Your task to perform on an android device: Check the weather Image 0: 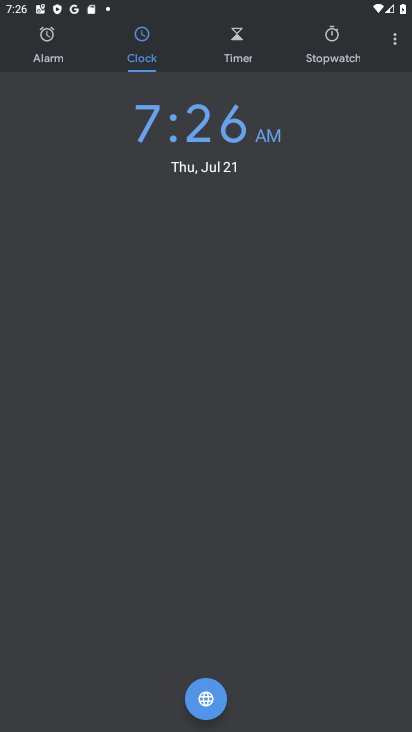
Step 0: press home button
Your task to perform on an android device: Check the weather Image 1: 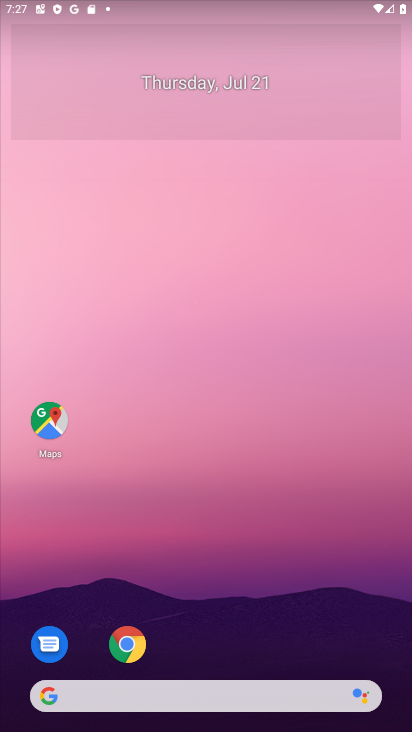
Step 1: click (83, 698)
Your task to perform on an android device: Check the weather Image 2: 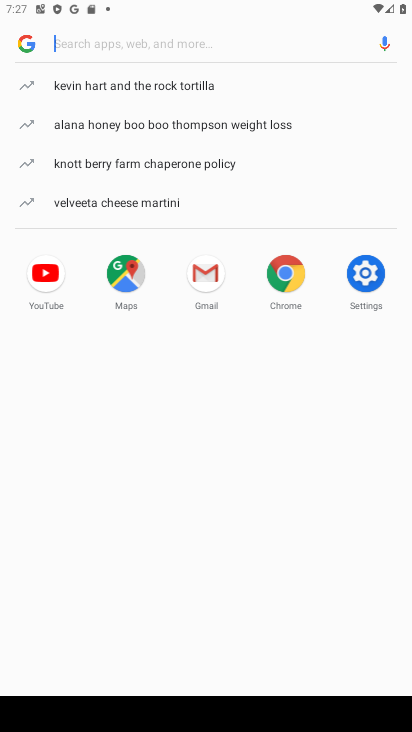
Step 2: type "Check the weather"
Your task to perform on an android device: Check the weather Image 3: 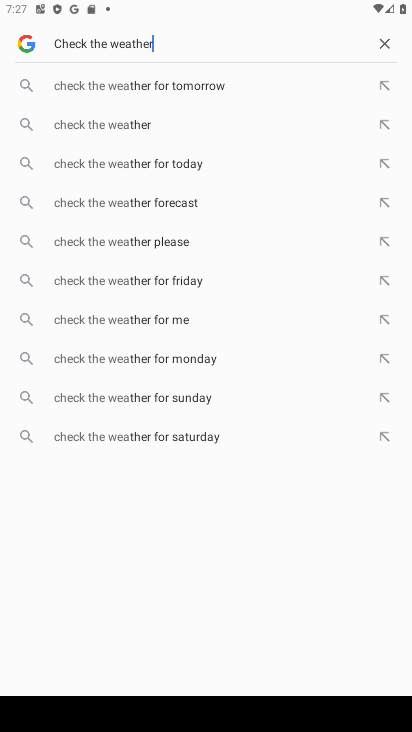
Step 3: press enter
Your task to perform on an android device: Check the weather Image 4: 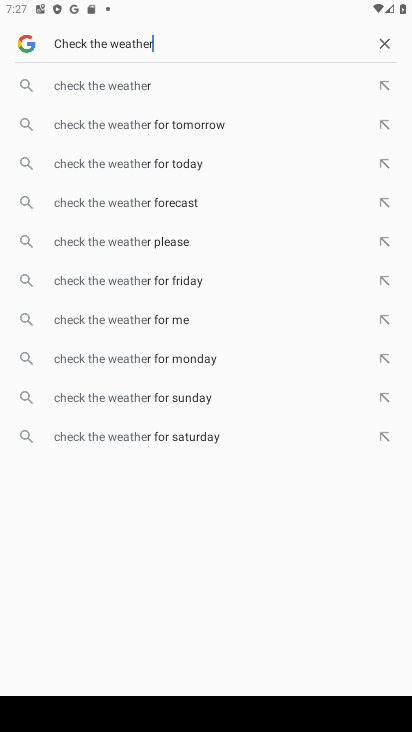
Step 4: type ""
Your task to perform on an android device: Check the weather Image 5: 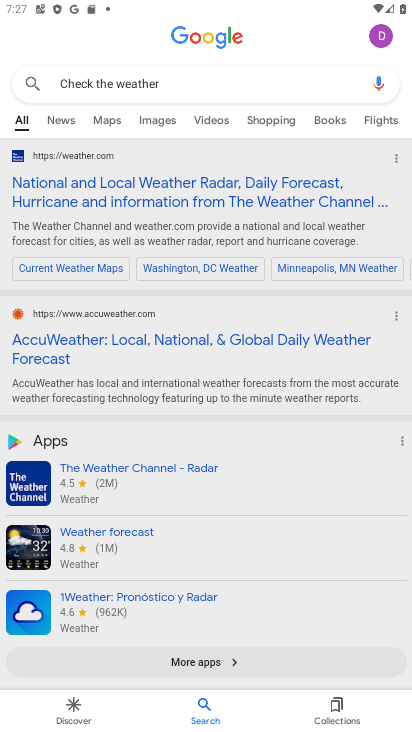
Step 5: task complete